Your task to perform on an android device: toggle javascript in the chrome app Image 0: 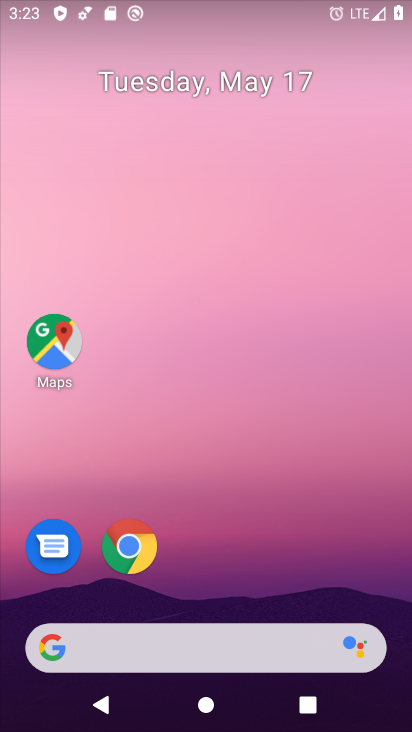
Step 0: press home button
Your task to perform on an android device: toggle javascript in the chrome app Image 1: 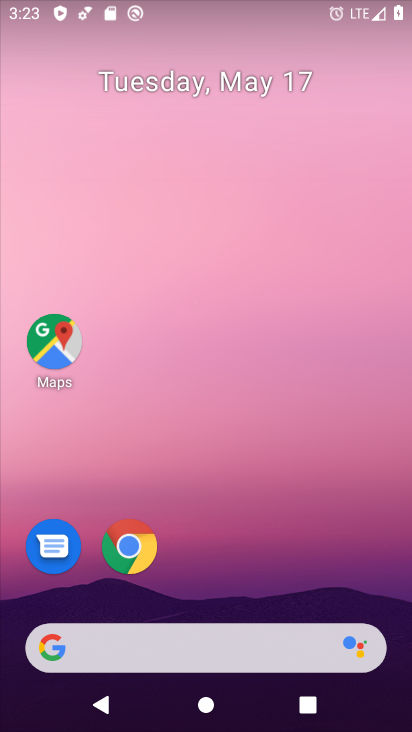
Step 1: click (135, 540)
Your task to perform on an android device: toggle javascript in the chrome app Image 2: 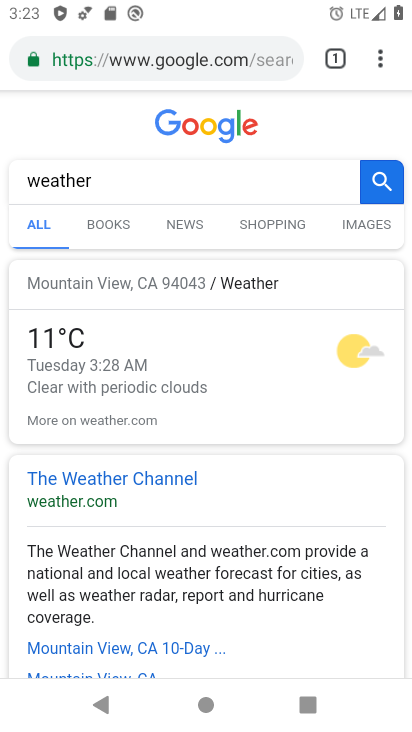
Step 2: drag from (374, 39) to (232, 570)
Your task to perform on an android device: toggle javascript in the chrome app Image 3: 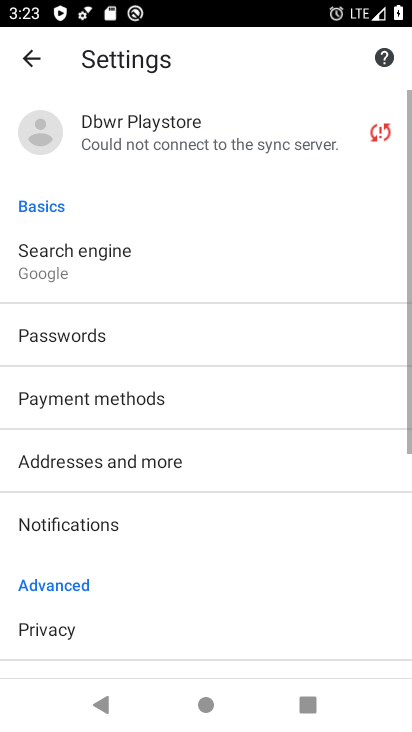
Step 3: drag from (179, 598) to (188, 151)
Your task to perform on an android device: toggle javascript in the chrome app Image 4: 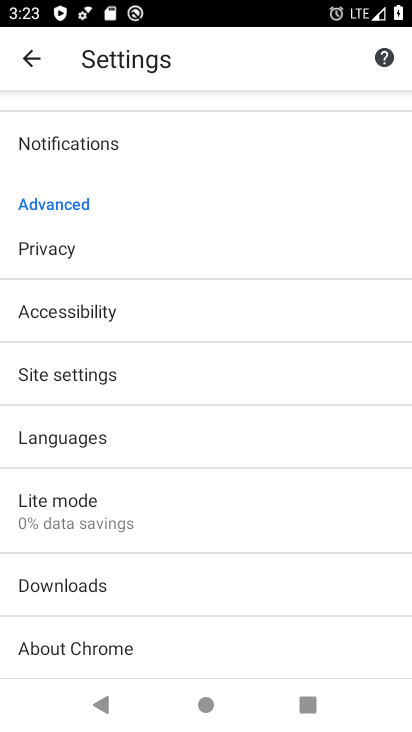
Step 4: click (148, 375)
Your task to perform on an android device: toggle javascript in the chrome app Image 5: 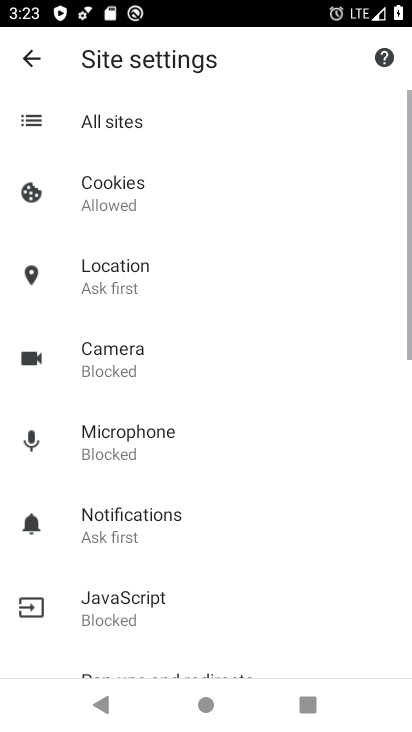
Step 5: drag from (189, 540) to (186, 413)
Your task to perform on an android device: toggle javascript in the chrome app Image 6: 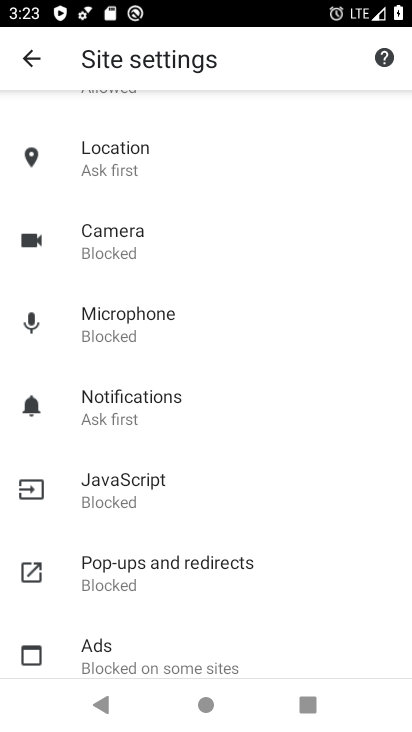
Step 6: click (158, 472)
Your task to perform on an android device: toggle javascript in the chrome app Image 7: 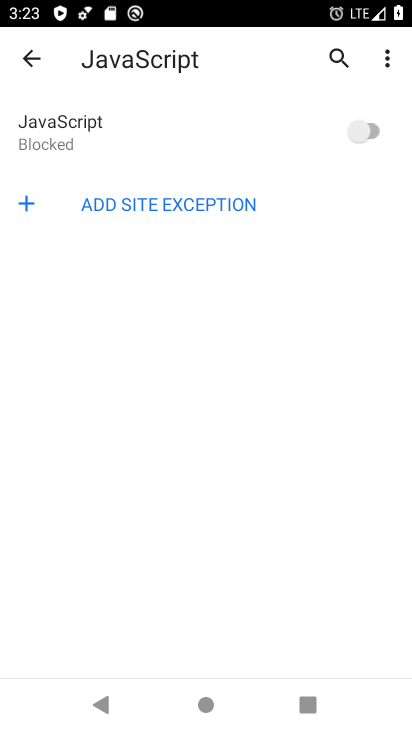
Step 7: click (353, 146)
Your task to perform on an android device: toggle javascript in the chrome app Image 8: 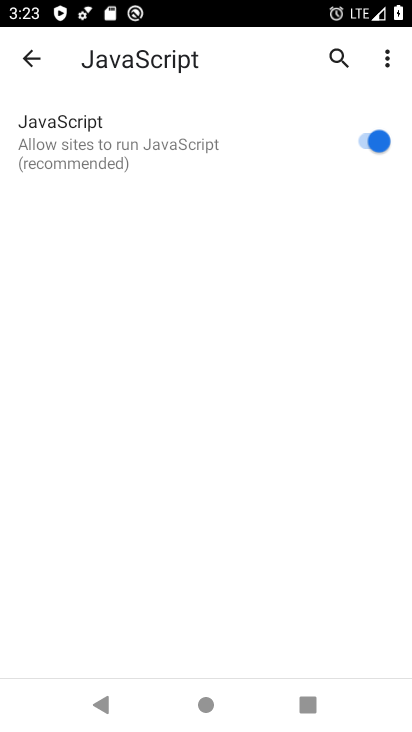
Step 8: task complete